Your task to perform on an android device: find which apps use the phone's location Image 0: 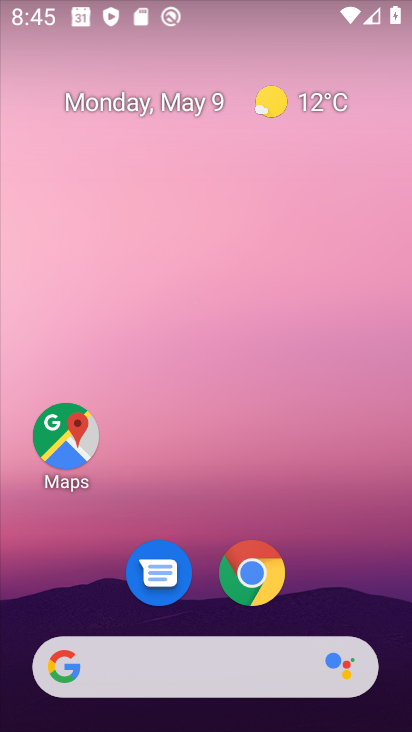
Step 0: drag from (240, 577) to (236, 3)
Your task to perform on an android device: find which apps use the phone's location Image 1: 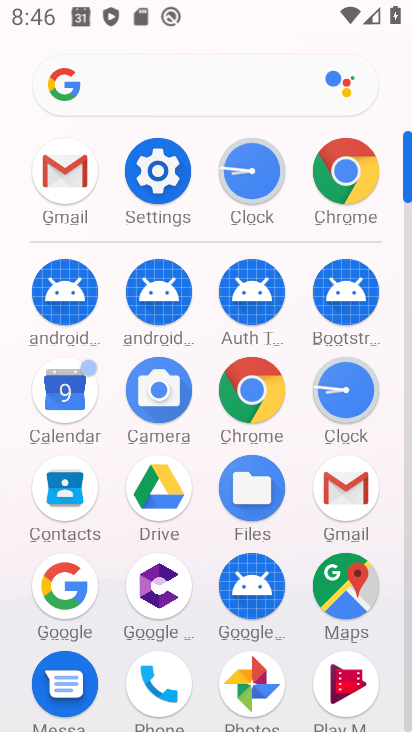
Step 1: click (169, 176)
Your task to perform on an android device: find which apps use the phone's location Image 2: 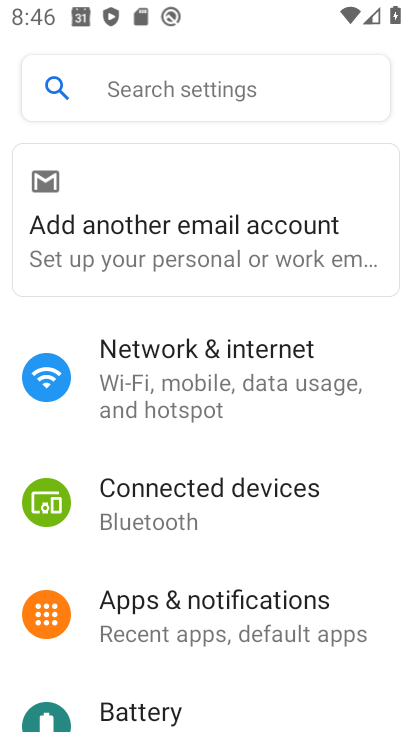
Step 2: drag from (191, 632) to (283, 375)
Your task to perform on an android device: find which apps use the phone's location Image 3: 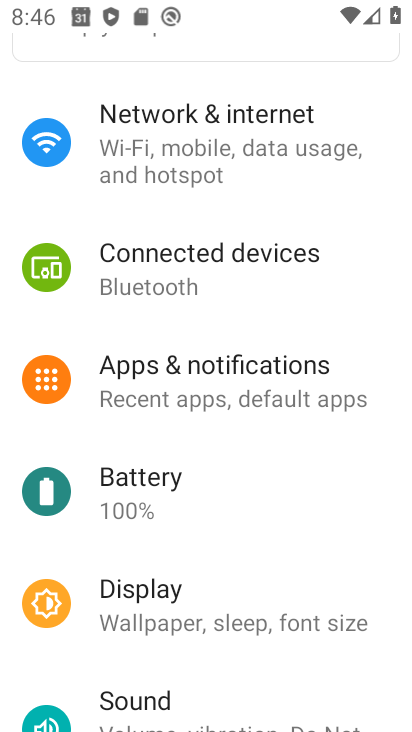
Step 3: drag from (245, 541) to (243, 154)
Your task to perform on an android device: find which apps use the phone's location Image 4: 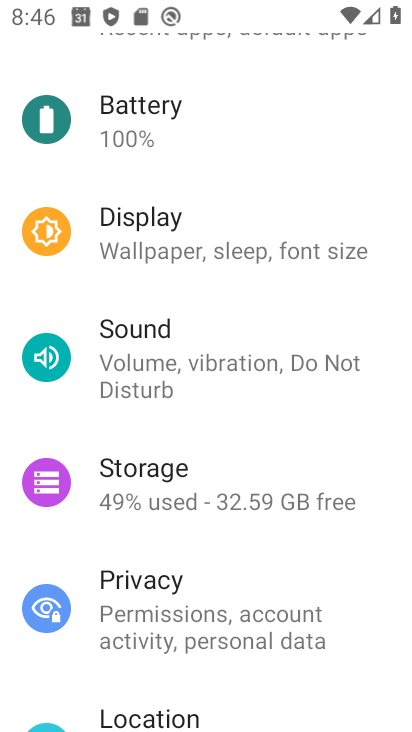
Step 4: drag from (192, 631) to (191, 583)
Your task to perform on an android device: find which apps use the phone's location Image 5: 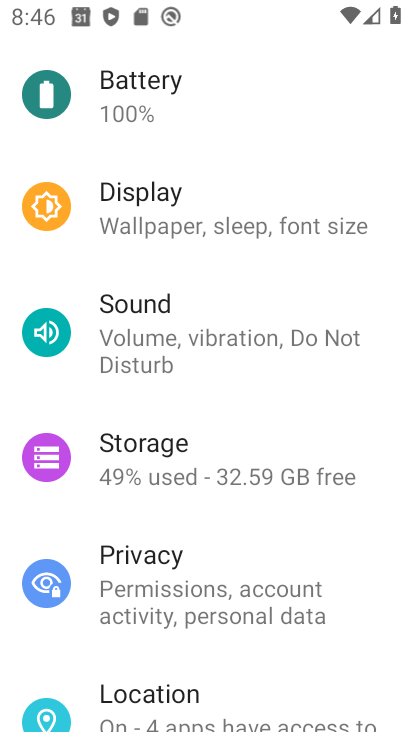
Step 5: click (147, 687)
Your task to perform on an android device: find which apps use the phone's location Image 6: 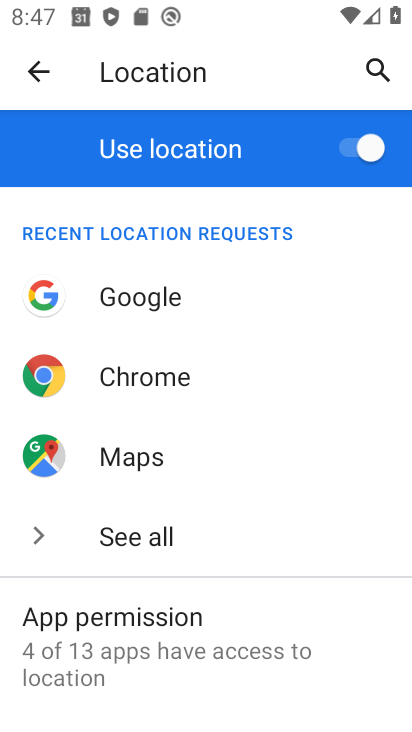
Step 6: drag from (162, 654) to (213, 488)
Your task to perform on an android device: find which apps use the phone's location Image 7: 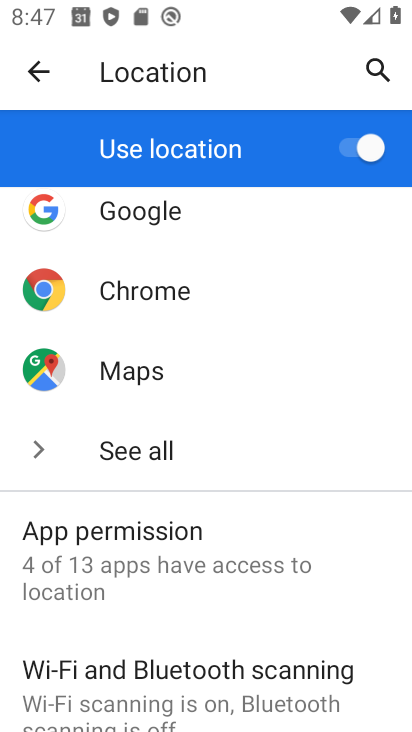
Step 7: click (195, 541)
Your task to perform on an android device: find which apps use the phone's location Image 8: 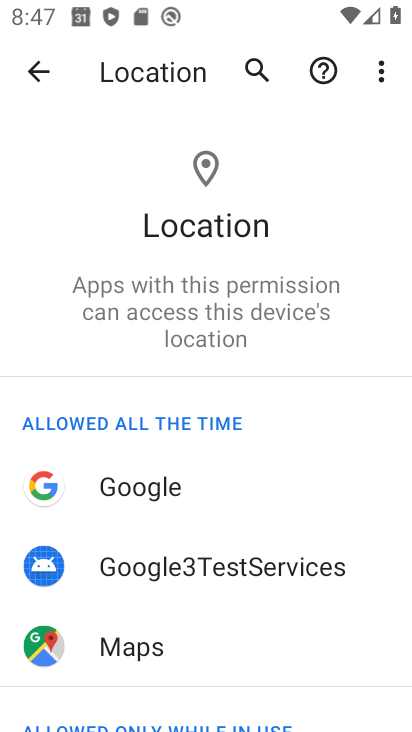
Step 8: task complete